Your task to perform on an android device: When is my next meeting? Image 0: 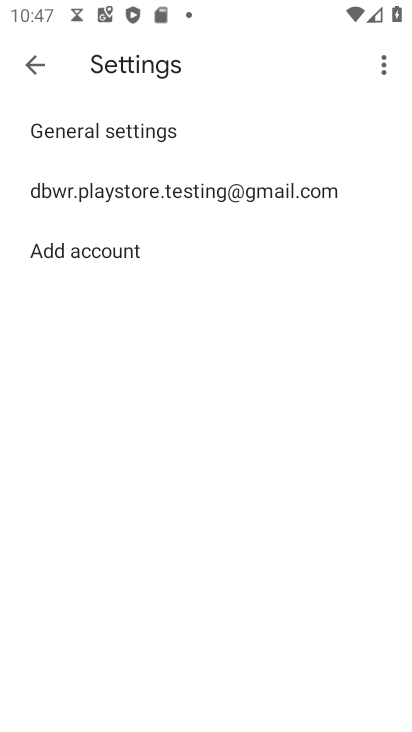
Step 0: press home button
Your task to perform on an android device: When is my next meeting? Image 1: 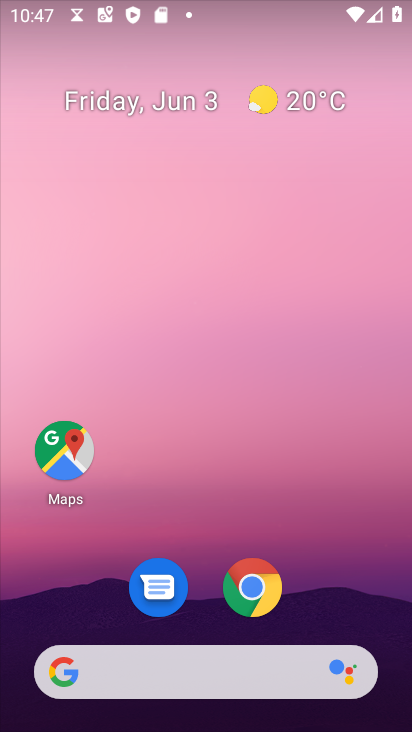
Step 1: drag from (316, 380) to (194, 72)
Your task to perform on an android device: When is my next meeting? Image 2: 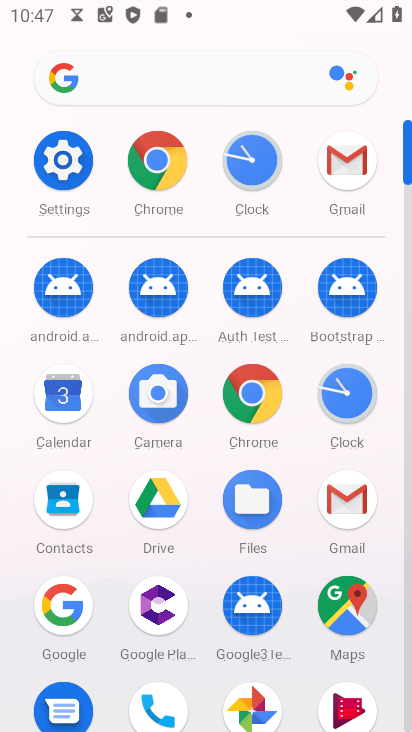
Step 2: click (68, 396)
Your task to perform on an android device: When is my next meeting? Image 3: 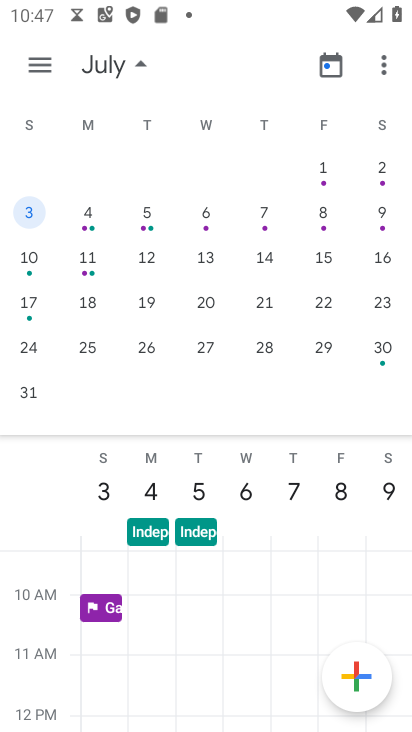
Step 3: click (42, 61)
Your task to perform on an android device: When is my next meeting? Image 4: 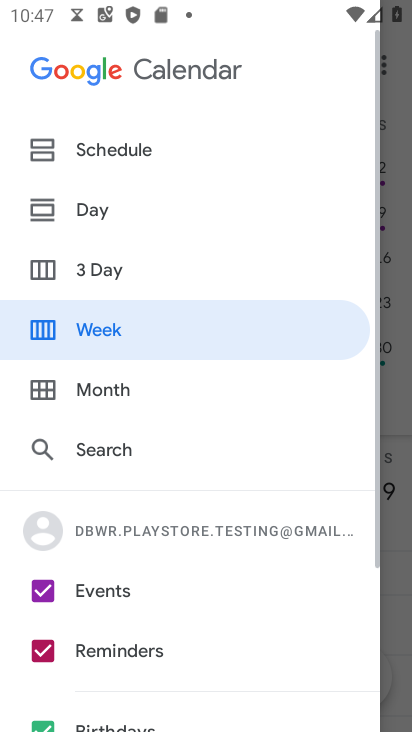
Step 4: click (388, 253)
Your task to perform on an android device: When is my next meeting? Image 5: 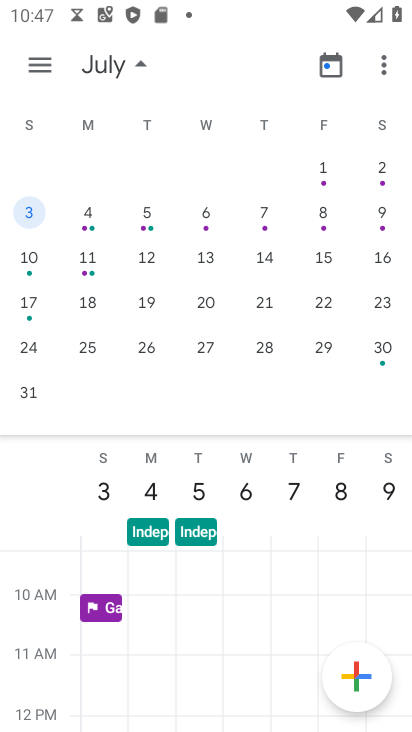
Step 5: click (123, 59)
Your task to perform on an android device: When is my next meeting? Image 6: 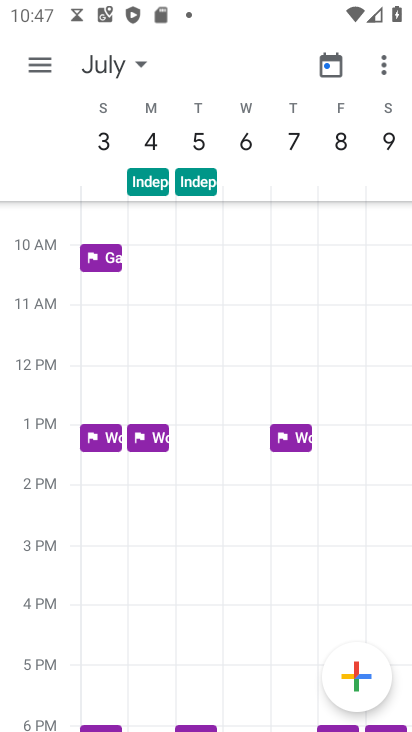
Step 6: click (121, 62)
Your task to perform on an android device: When is my next meeting? Image 7: 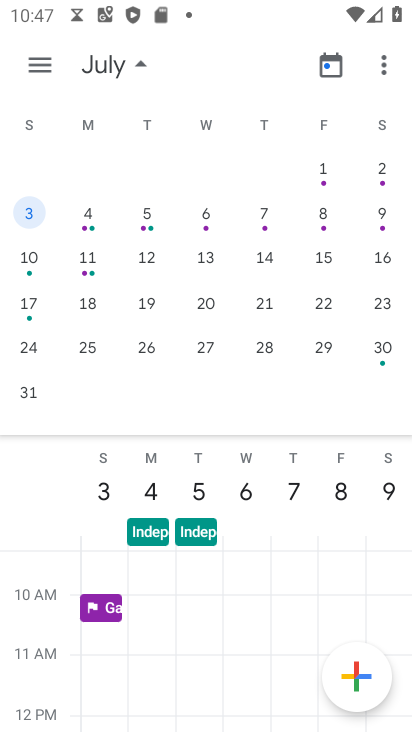
Step 7: drag from (62, 189) to (402, 138)
Your task to perform on an android device: When is my next meeting? Image 8: 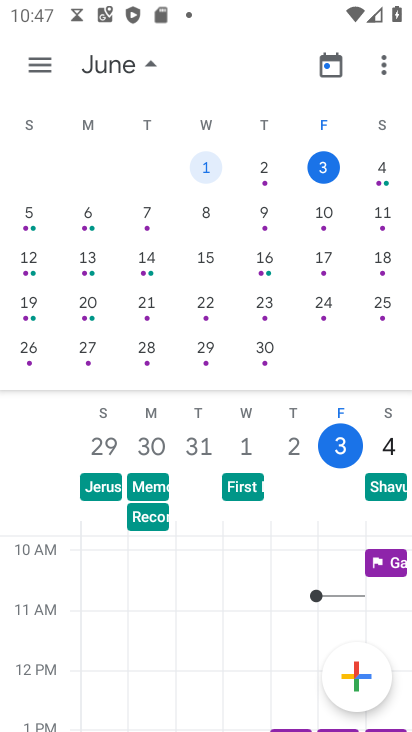
Step 8: click (213, 174)
Your task to perform on an android device: When is my next meeting? Image 9: 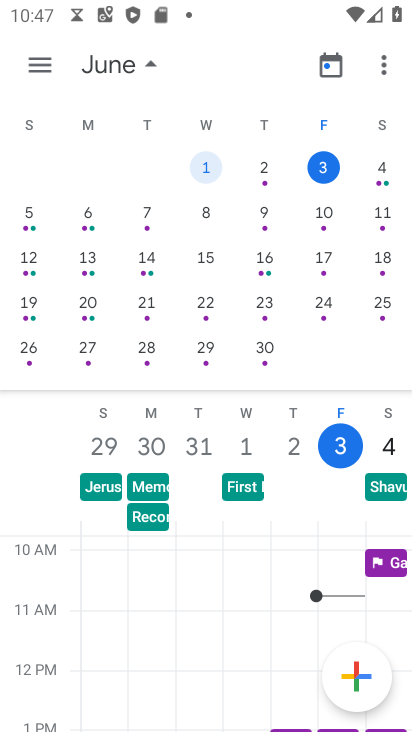
Step 9: task complete